Your task to perform on an android device: change the clock display to digital Image 0: 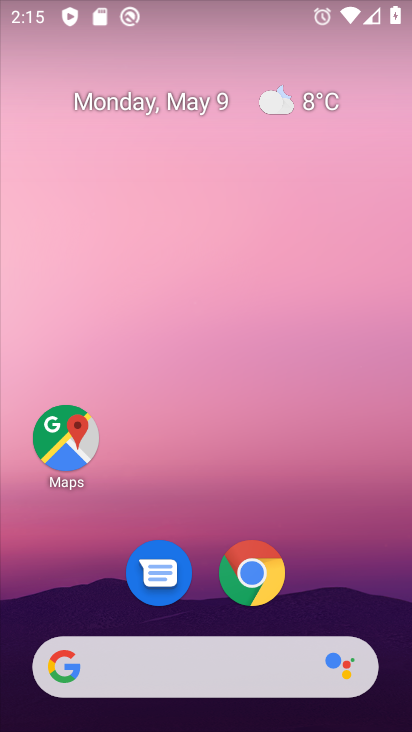
Step 0: drag from (198, 678) to (351, 227)
Your task to perform on an android device: change the clock display to digital Image 1: 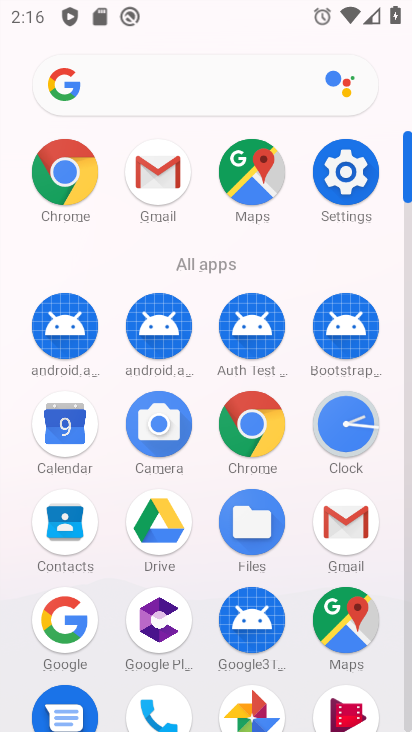
Step 1: click (340, 421)
Your task to perform on an android device: change the clock display to digital Image 2: 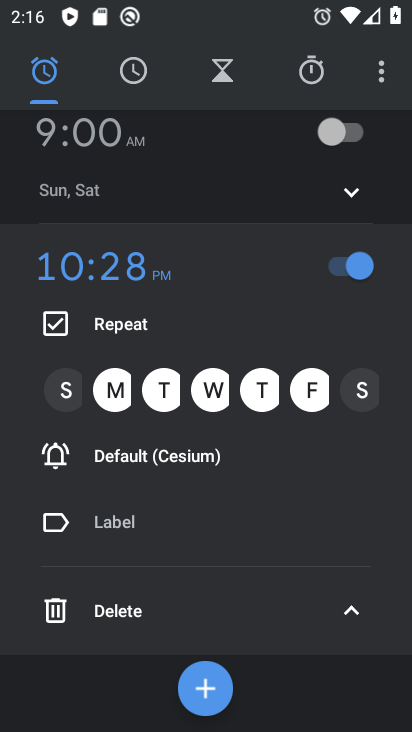
Step 2: click (384, 81)
Your task to perform on an android device: change the clock display to digital Image 3: 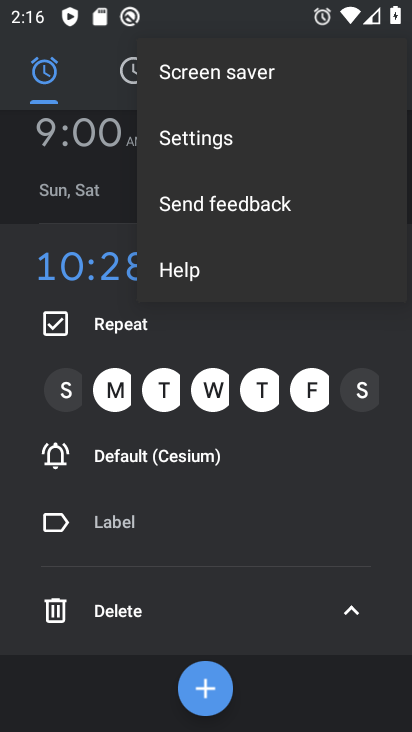
Step 3: click (225, 142)
Your task to perform on an android device: change the clock display to digital Image 4: 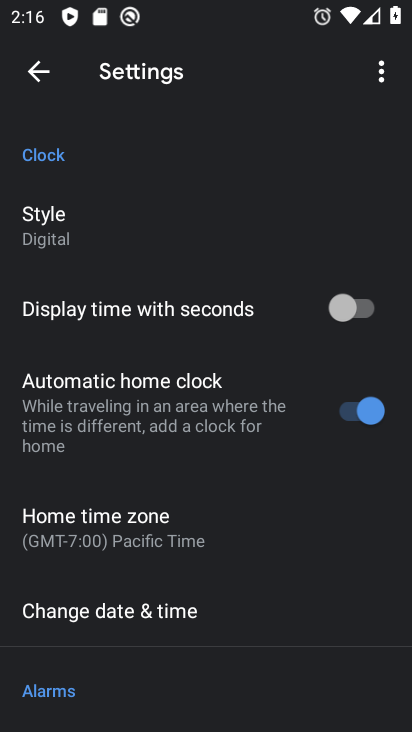
Step 4: task complete